Your task to perform on an android device: all mails in gmail Image 0: 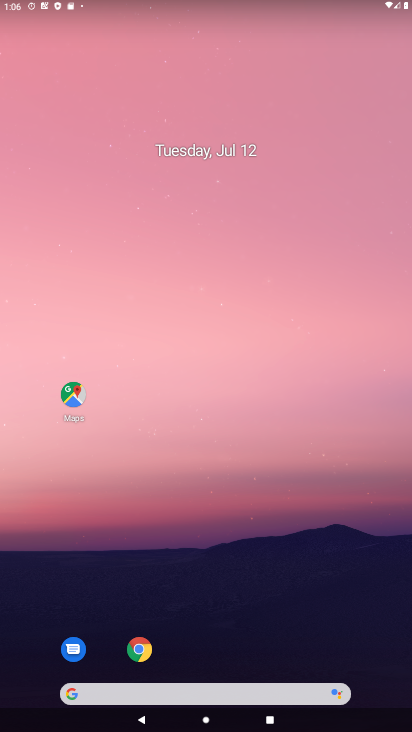
Step 0: drag from (375, 669) to (136, 24)
Your task to perform on an android device: all mails in gmail Image 1: 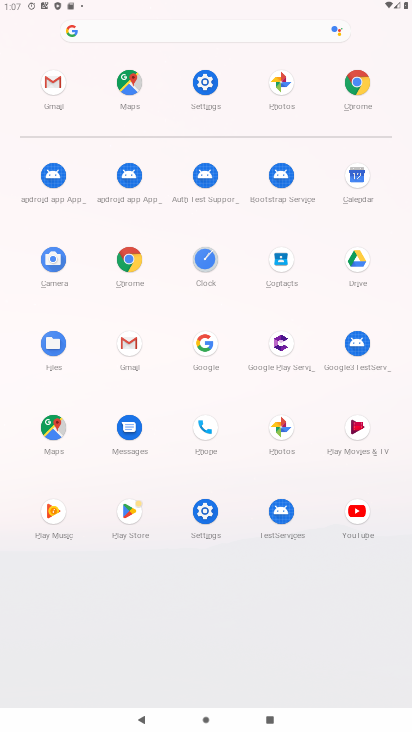
Step 1: click (115, 335)
Your task to perform on an android device: all mails in gmail Image 2: 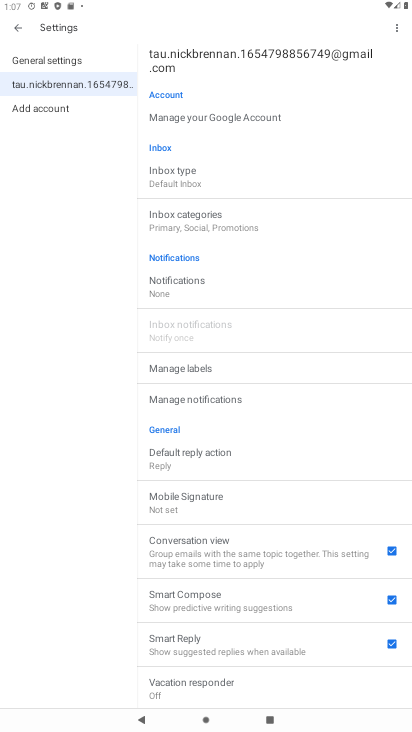
Step 2: press back button
Your task to perform on an android device: all mails in gmail Image 3: 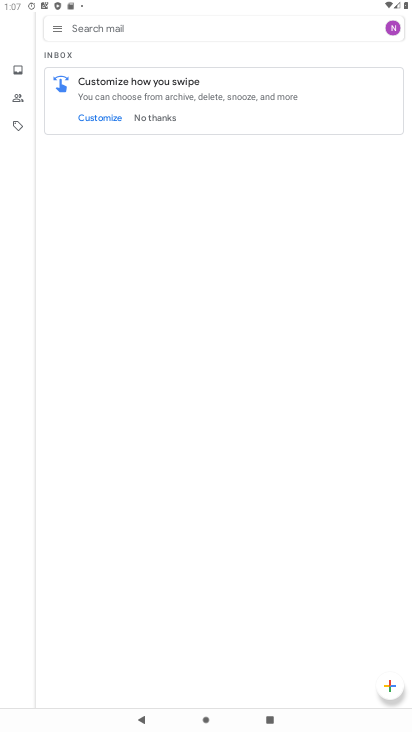
Step 3: click (56, 29)
Your task to perform on an android device: all mails in gmail Image 4: 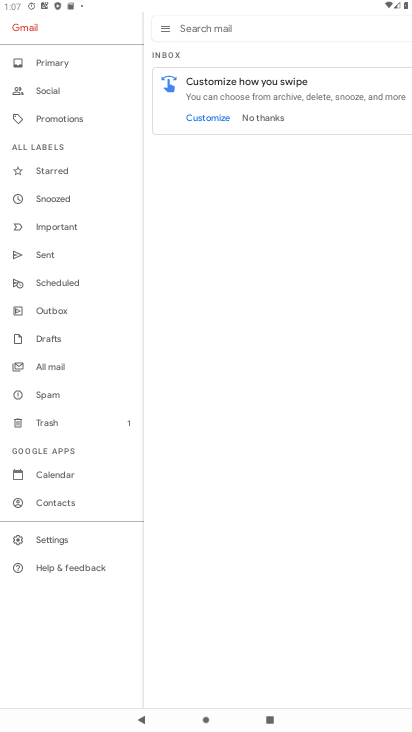
Step 4: click (52, 362)
Your task to perform on an android device: all mails in gmail Image 5: 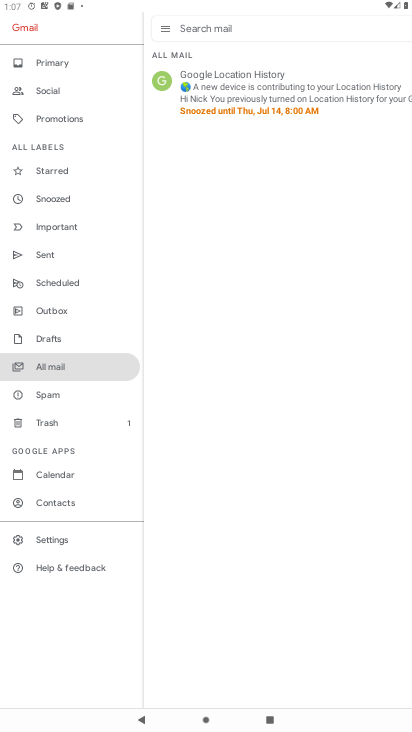
Step 5: task complete